Your task to perform on an android device: toggle pop-ups in chrome Image 0: 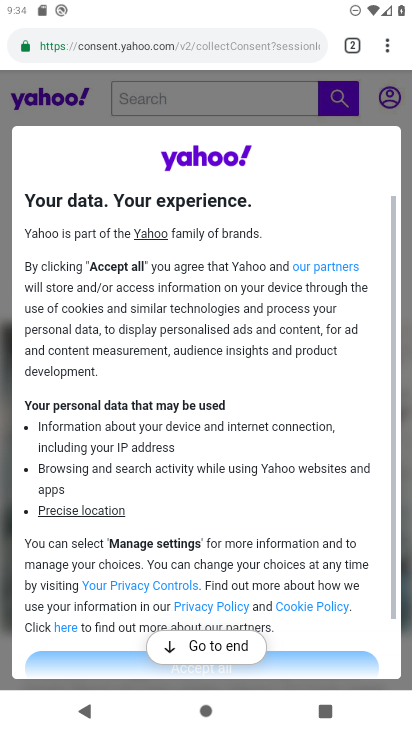
Step 0: click (390, 45)
Your task to perform on an android device: toggle pop-ups in chrome Image 1: 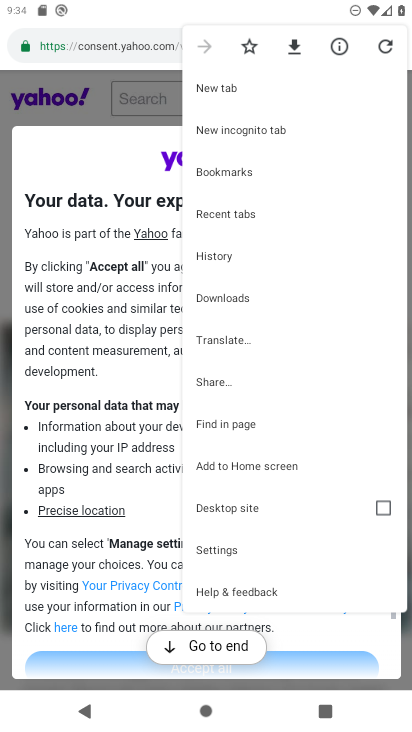
Step 1: click (256, 551)
Your task to perform on an android device: toggle pop-ups in chrome Image 2: 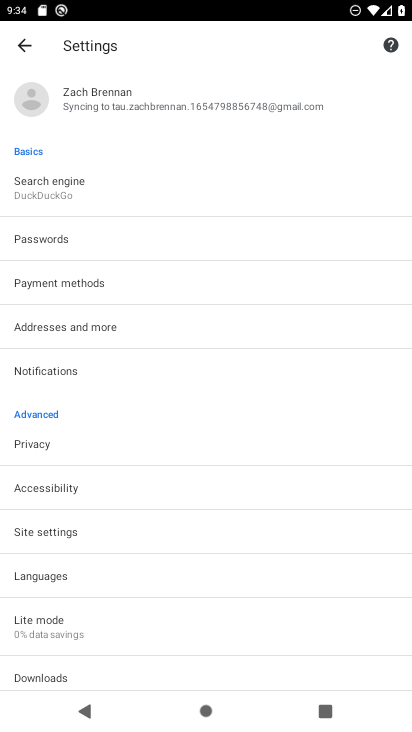
Step 2: click (204, 535)
Your task to perform on an android device: toggle pop-ups in chrome Image 3: 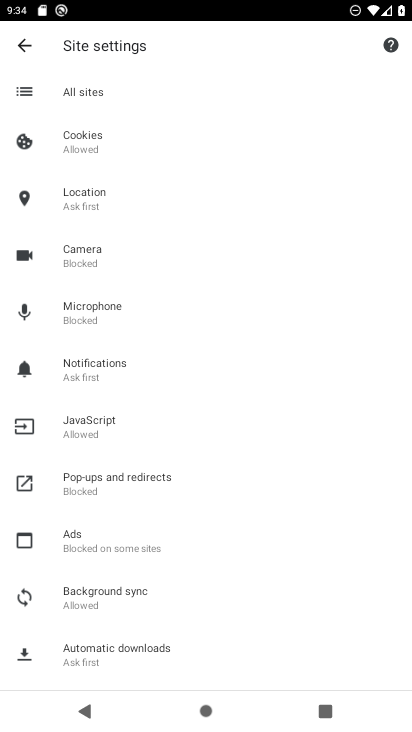
Step 3: click (160, 500)
Your task to perform on an android device: toggle pop-ups in chrome Image 4: 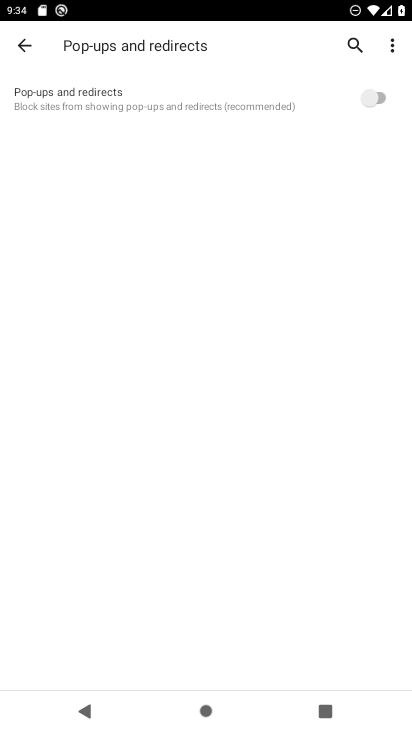
Step 4: click (383, 94)
Your task to perform on an android device: toggle pop-ups in chrome Image 5: 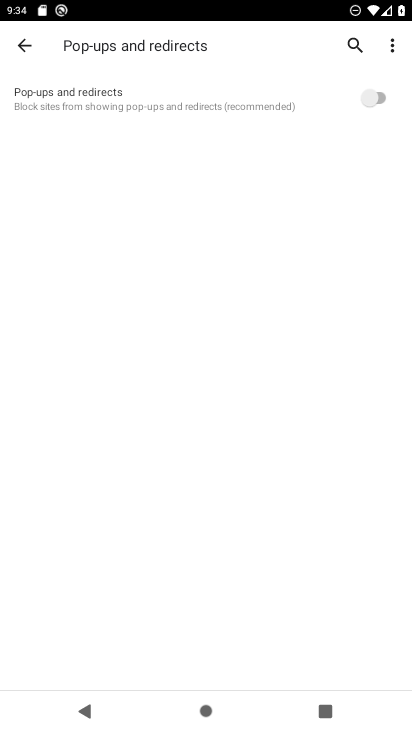
Step 5: click (383, 94)
Your task to perform on an android device: toggle pop-ups in chrome Image 6: 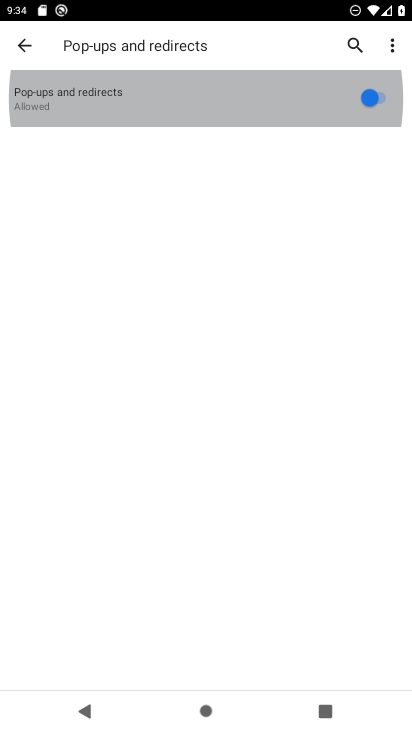
Step 6: click (383, 94)
Your task to perform on an android device: toggle pop-ups in chrome Image 7: 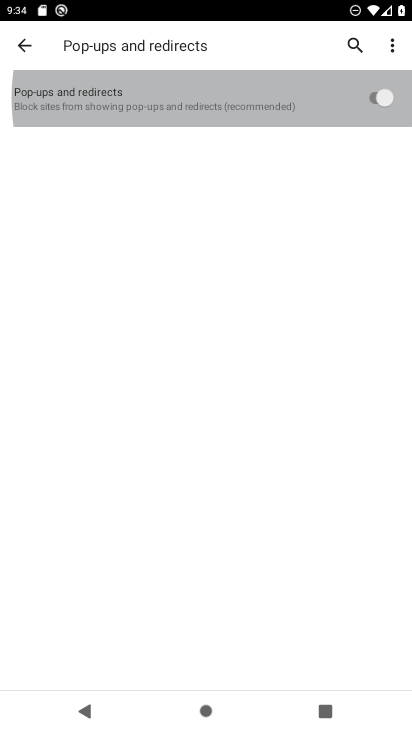
Step 7: click (383, 94)
Your task to perform on an android device: toggle pop-ups in chrome Image 8: 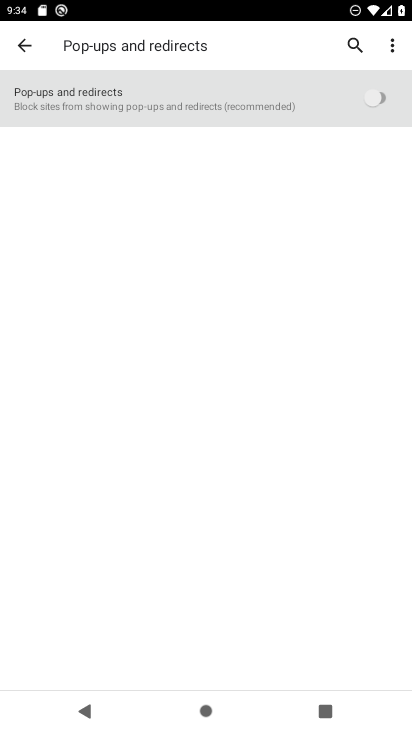
Step 8: click (383, 94)
Your task to perform on an android device: toggle pop-ups in chrome Image 9: 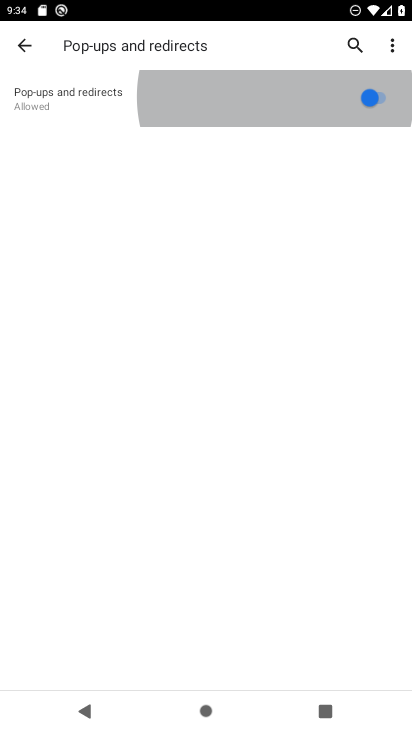
Step 9: click (383, 94)
Your task to perform on an android device: toggle pop-ups in chrome Image 10: 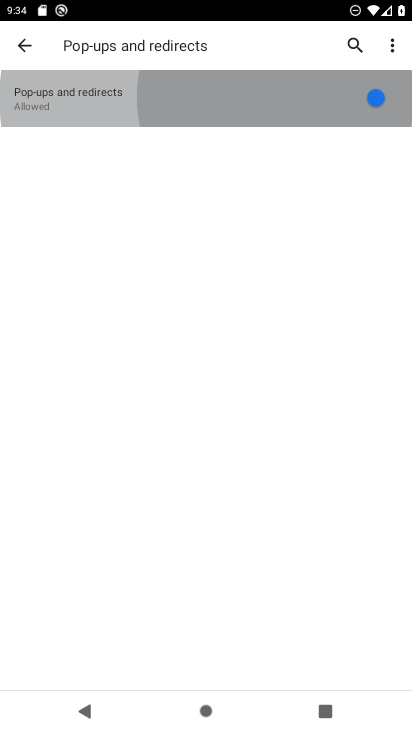
Step 10: click (383, 94)
Your task to perform on an android device: toggle pop-ups in chrome Image 11: 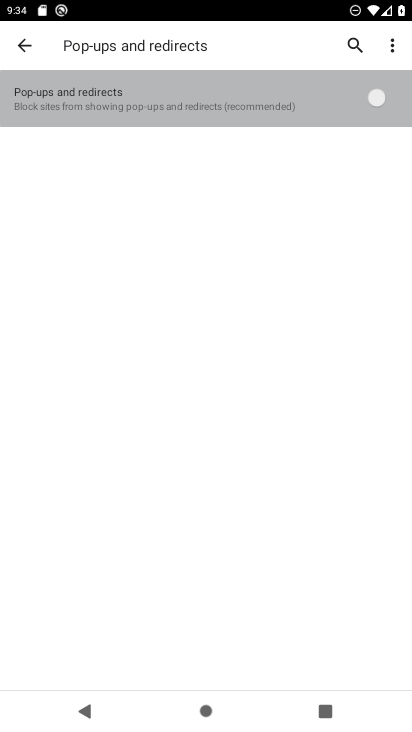
Step 11: click (383, 94)
Your task to perform on an android device: toggle pop-ups in chrome Image 12: 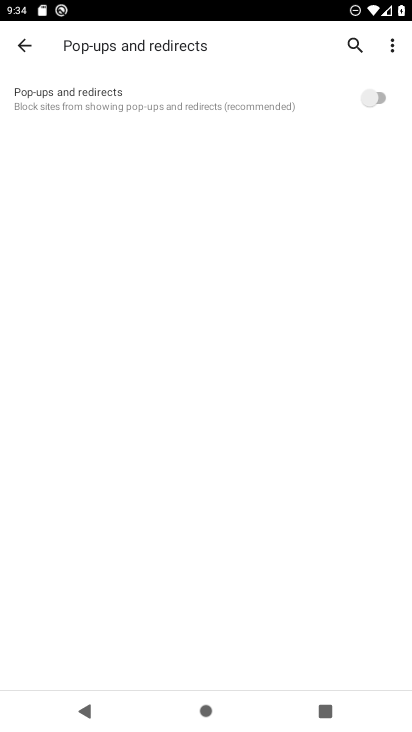
Step 12: task complete